Your task to perform on an android device: Go to settings Image 0: 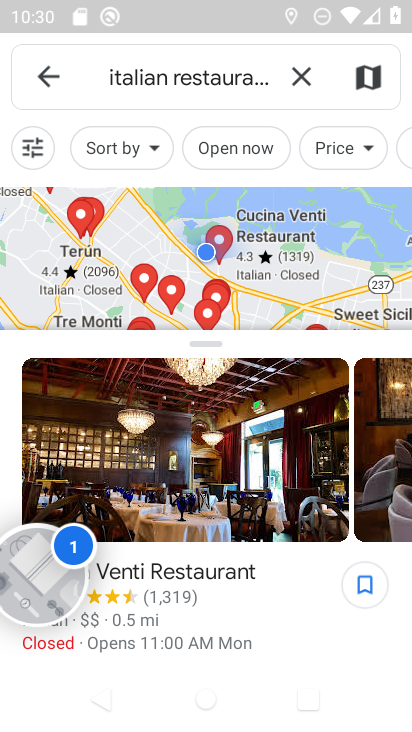
Step 0: press home button
Your task to perform on an android device: Go to settings Image 1: 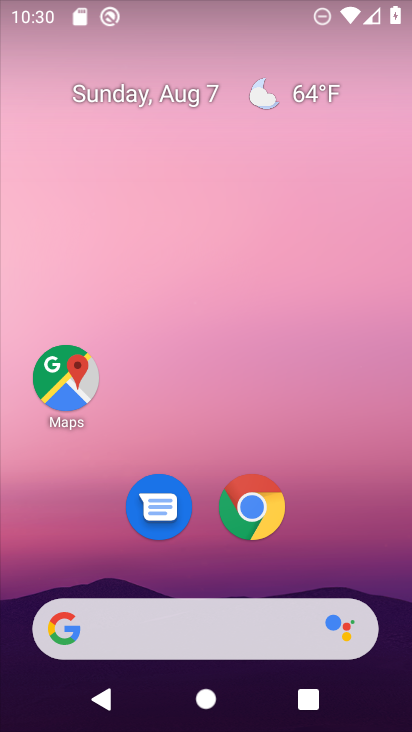
Step 1: drag from (362, 567) to (257, 125)
Your task to perform on an android device: Go to settings Image 2: 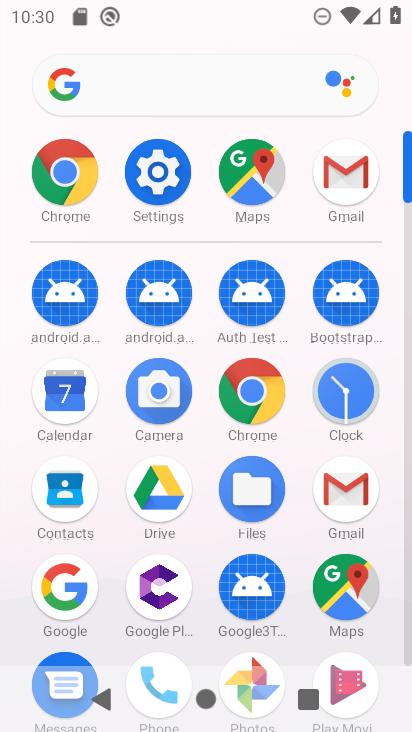
Step 2: click (154, 173)
Your task to perform on an android device: Go to settings Image 3: 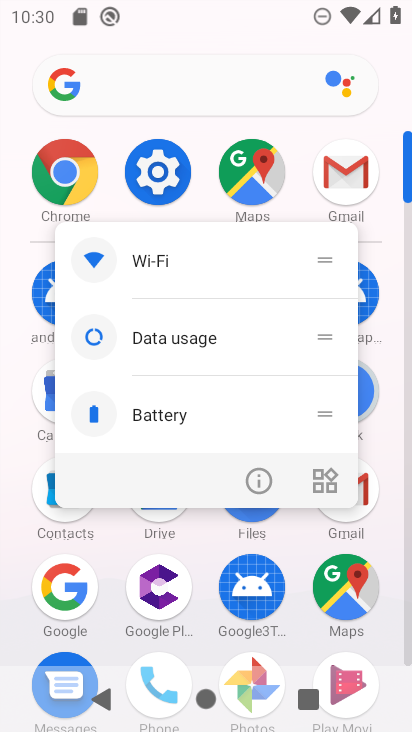
Step 3: click (154, 167)
Your task to perform on an android device: Go to settings Image 4: 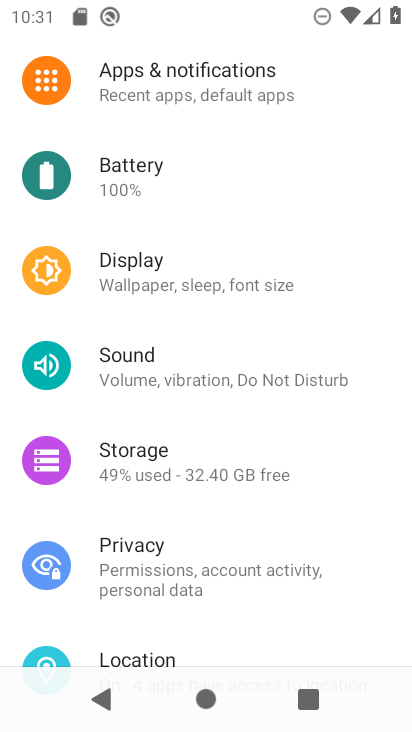
Step 4: task complete